Your task to perform on an android device: change keyboard looks Image 0: 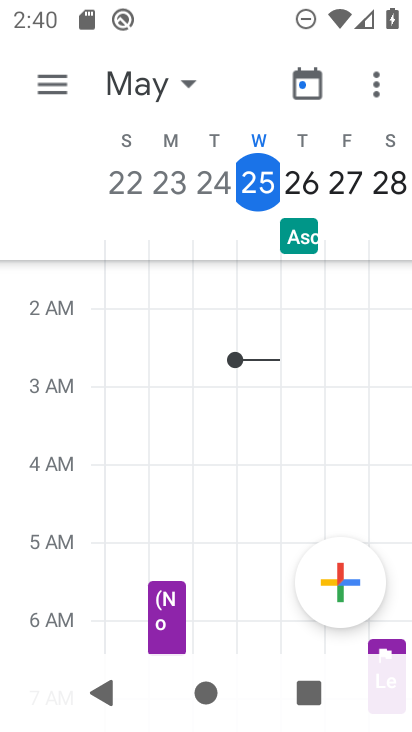
Step 0: press home button
Your task to perform on an android device: change keyboard looks Image 1: 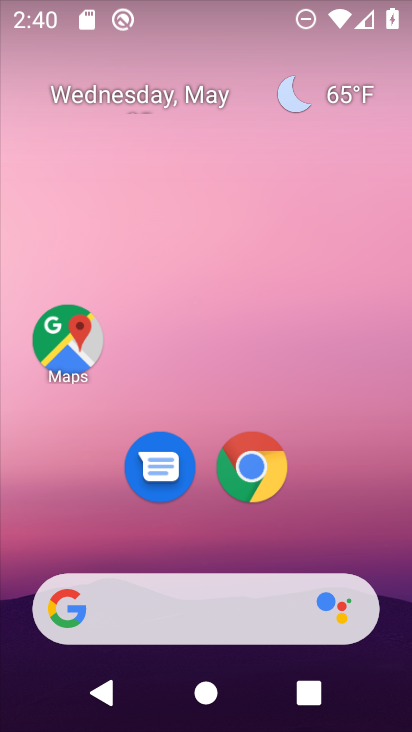
Step 1: drag from (276, 540) to (289, 262)
Your task to perform on an android device: change keyboard looks Image 2: 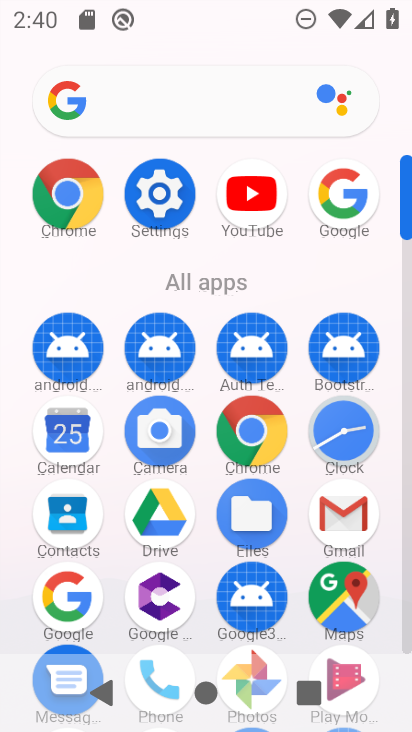
Step 2: click (164, 181)
Your task to perform on an android device: change keyboard looks Image 3: 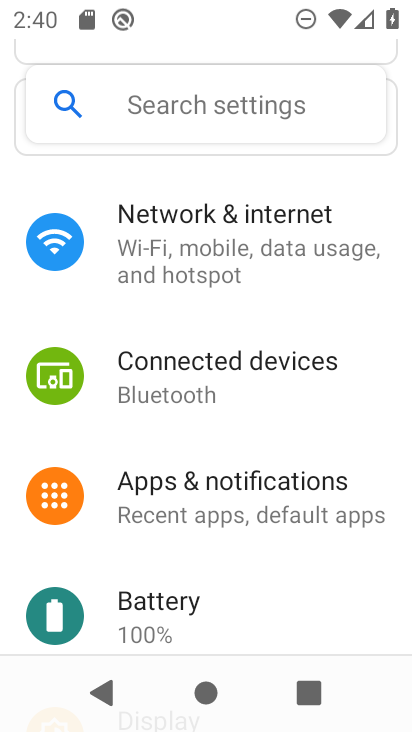
Step 3: drag from (269, 602) to (270, 175)
Your task to perform on an android device: change keyboard looks Image 4: 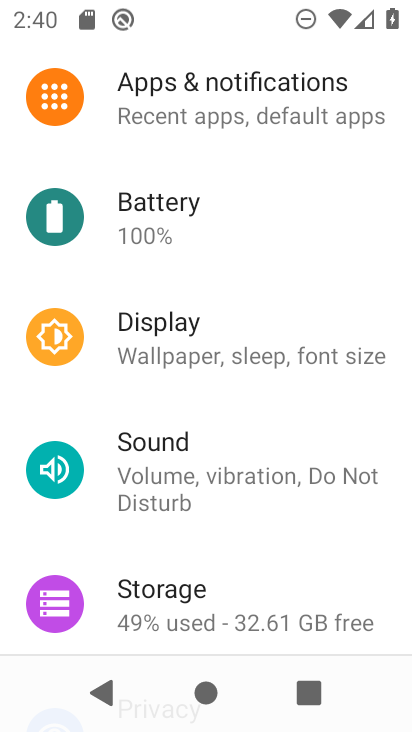
Step 4: drag from (219, 546) to (229, 402)
Your task to perform on an android device: change keyboard looks Image 5: 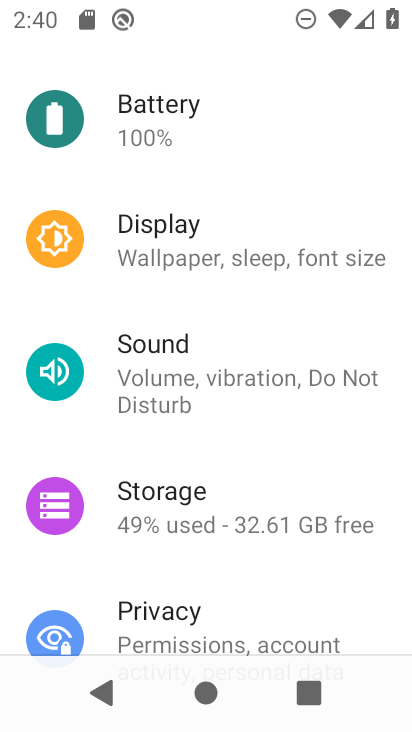
Step 5: drag from (271, 552) to (279, 72)
Your task to perform on an android device: change keyboard looks Image 6: 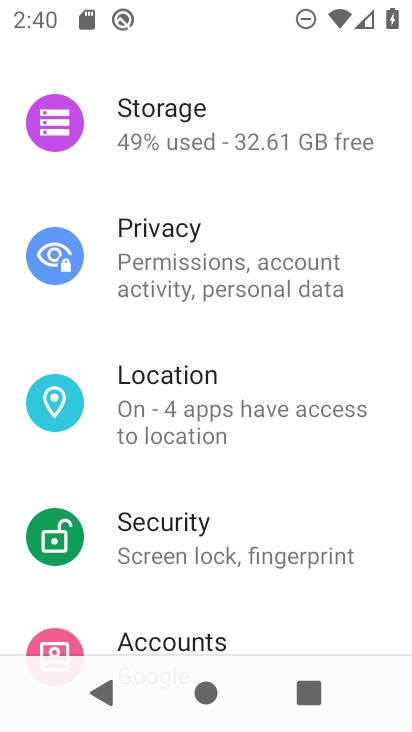
Step 6: drag from (232, 535) to (238, 215)
Your task to perform on an android device: change keyboard looks Image 7: 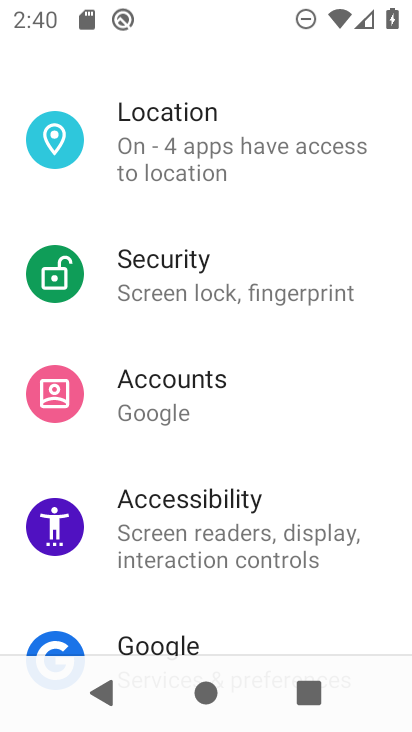
Step 7: drag from (191, 602) to (223, 213)
Your task to perform on an android device: change keyboard looks Image 8: 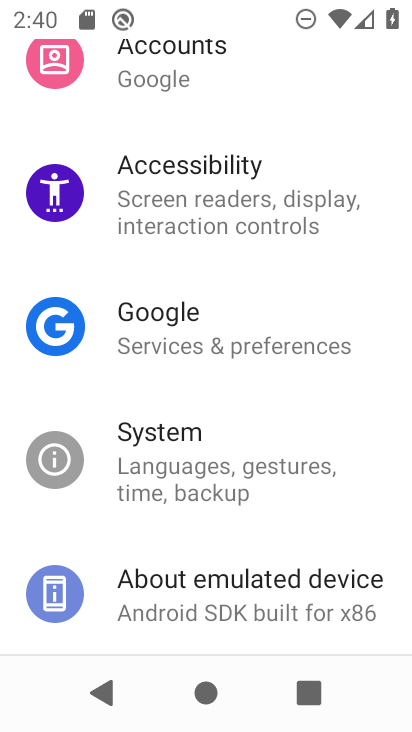
Step 8: click (200, 473)
Your task to perform on an android device: change keyboard looks Image 9: 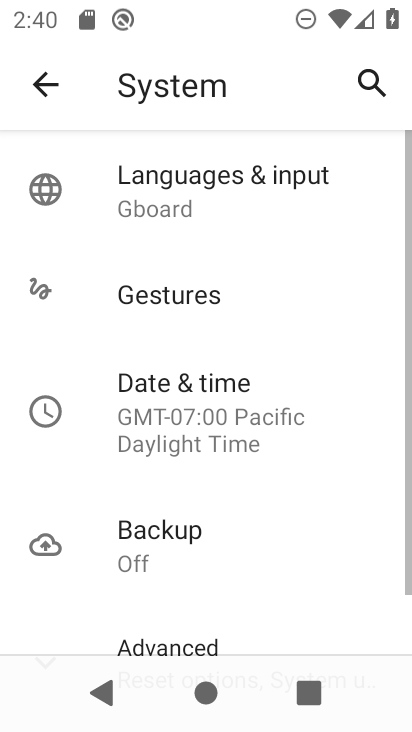
Step 9: click (196, 193)
Your task to perform on an android device: change keyboard looks Image 10: 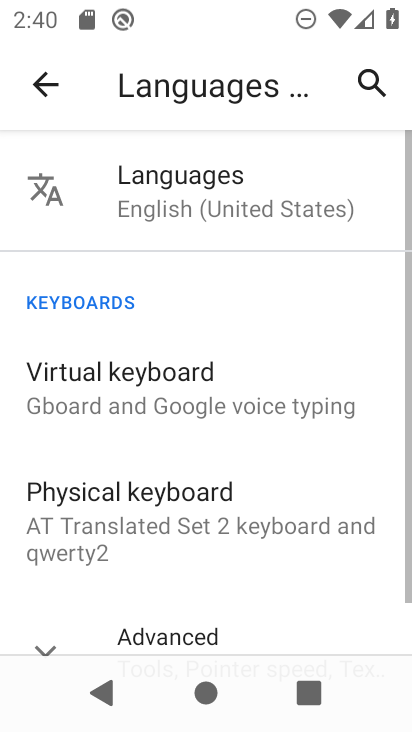
Step 10: click (216, 193)
Your task to perform on an android device: change keyboard looks Image 11: 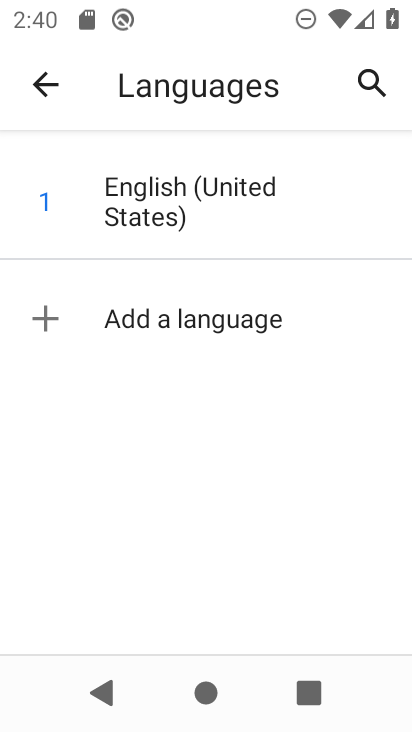
Step 11: click (49, 83)
Your task to perform on an android device: change keyboard looks Image 12: 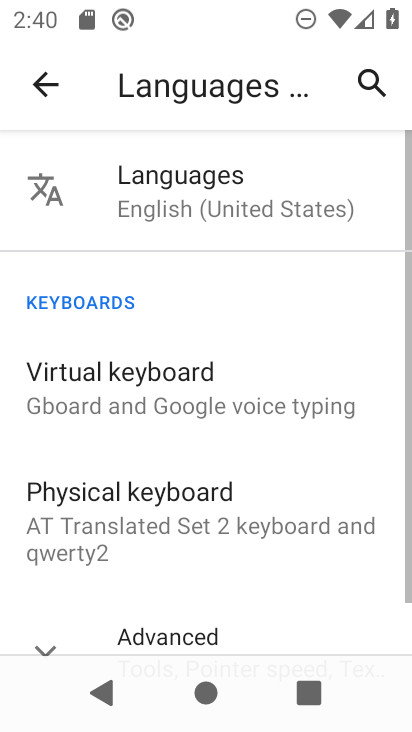
Step 12: click (141, 361)
Your task to perform on an android device: change keyboard looks Image 13: 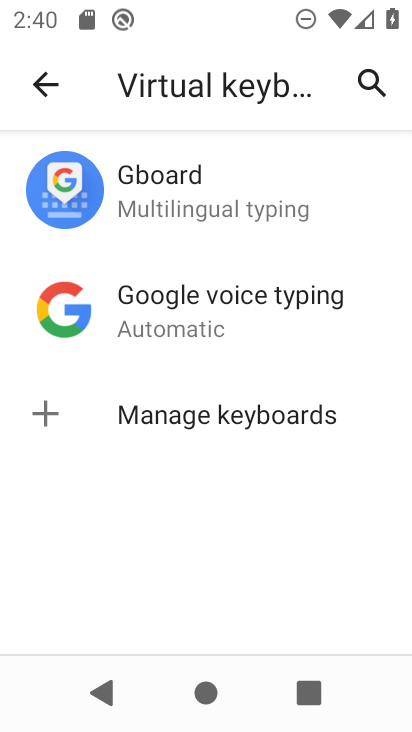
Step 13: click (184, 185)
Your task to perform on an android device: change keyboard looks Image 14: 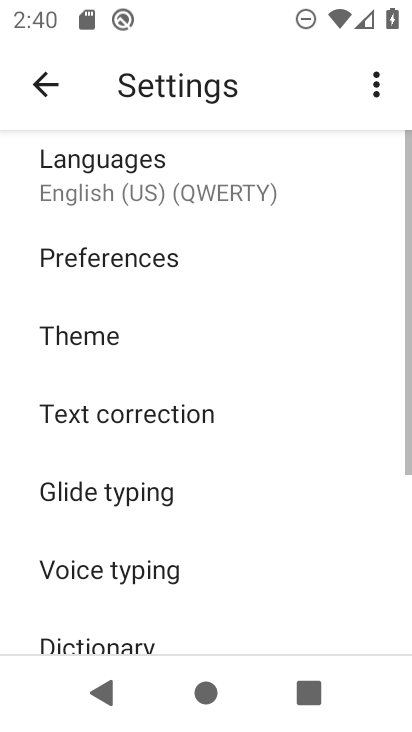
Step 14: click (141, 351)
Your task to perform on an android device: change keyboard looks Image 15: 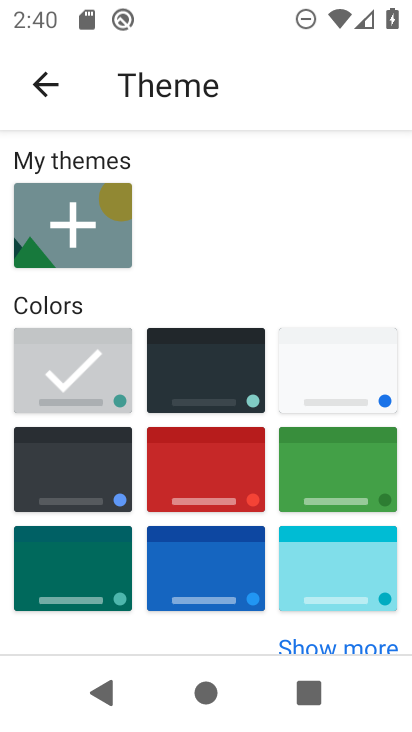
Step 15: click (205, 543)
Your task to perform on an android device: change keyboard looks Image 16: 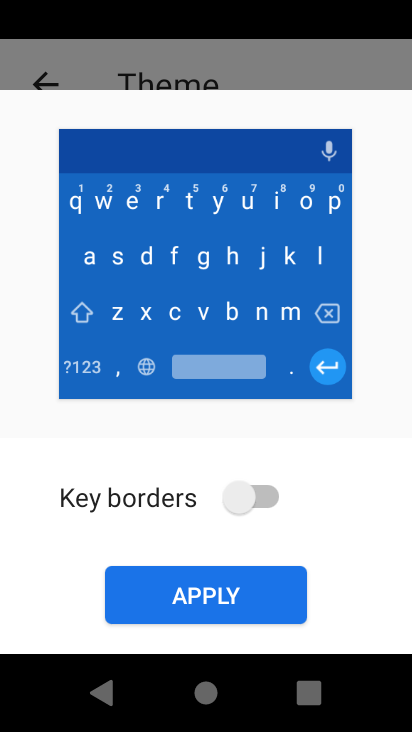
Step 16: click (233, 585)
Your task to perform on an android device: change keyboard looks Image 17: 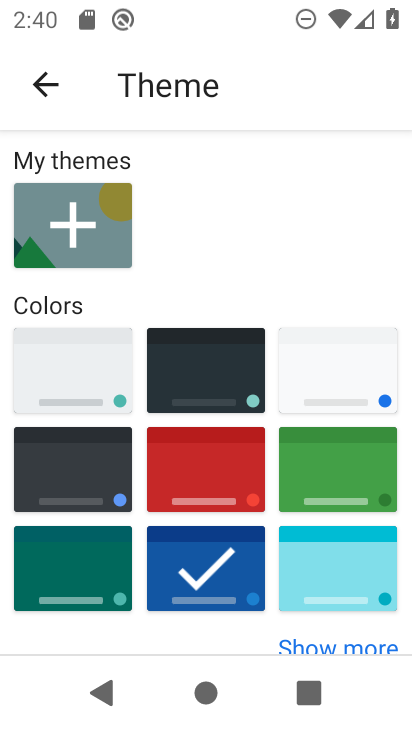
Step 17: task complete